Your task to perform on an android device: empty trash in the gmail app Image 0: 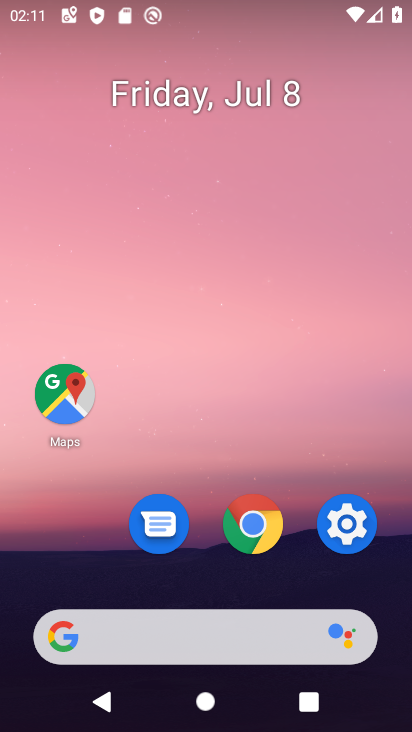
Step 0: drag from (282, 668) to (235, 257)
Your task to perform on an android device: empty trash in the gmail app Image 1: 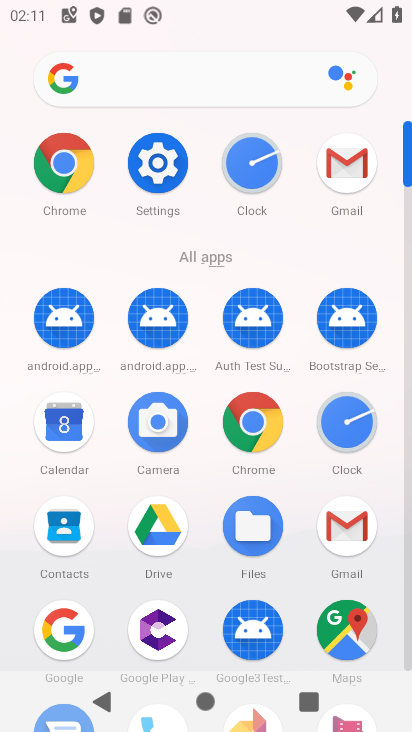
Step 1: click (334, 196)
Your task to perform on an android device: empty trash in the gmail app Image 2: 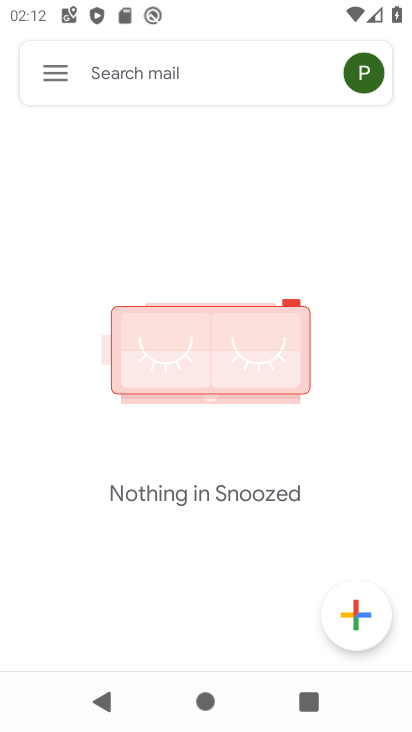
Step 2: click (38, 76)
Your task to perform on an android device: empty trash in the gmail app Image 3: 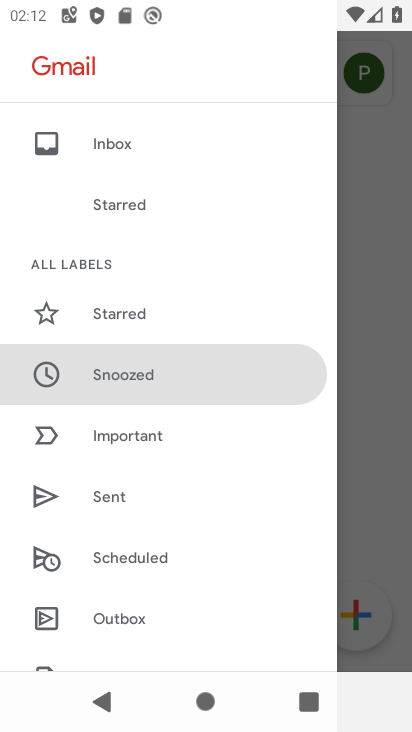
Step 3: drag from (143, 564) to (208, 397)
Your task to perform on an android device: empty trash in the gmail app Image 4: 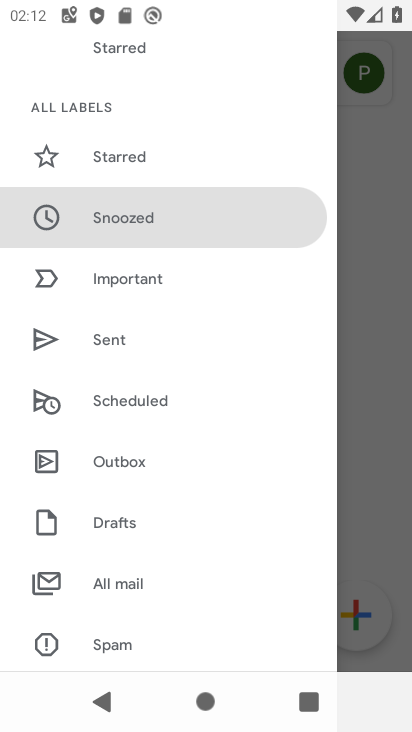
Step 4: drag from (147, 601) to (193, 475)
Your task to perform on an android device: empty trash in the gmail app Image 5: 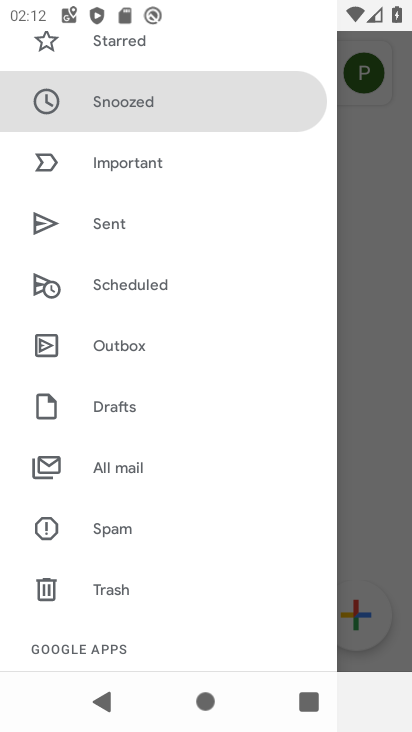
Step 5: click (130, 579)
Your task to perform on an android device: empty trash in the gmail app Image 6: 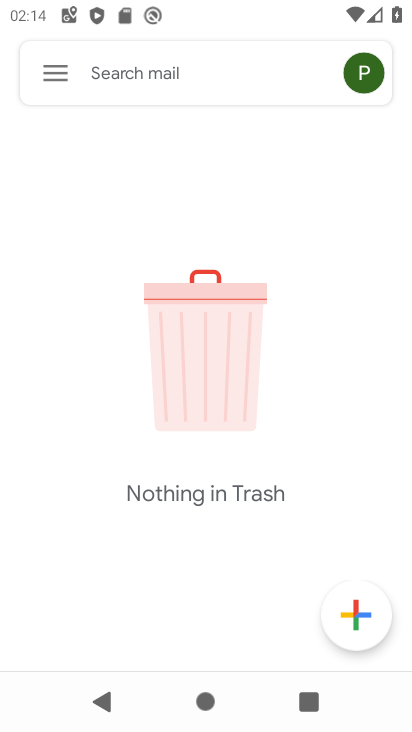
Step 6: task complete